Your task to perform on an android device: Open Android settings Image 0: 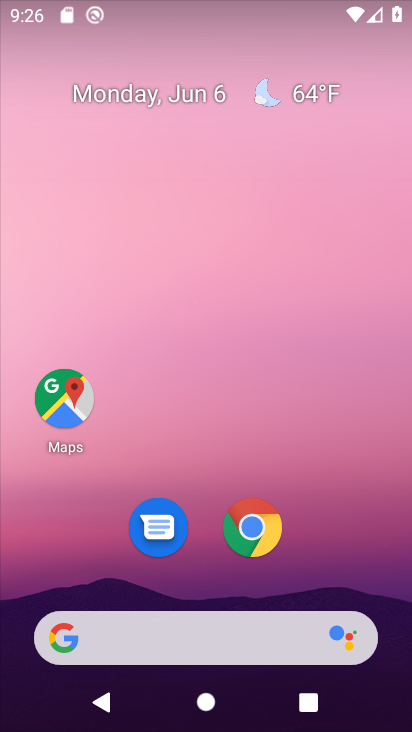
Step 0: drag from (247, 591) to (119, 0)
Your task to perform on an android device: Open Android settings Image 1: 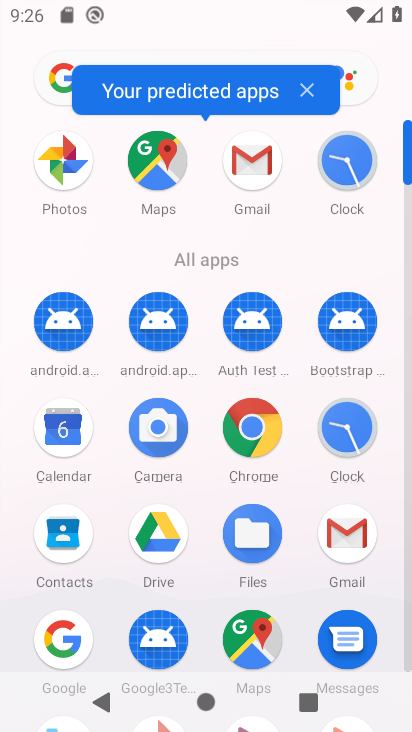
Step 1: drag from (205, 525) to (215, 5)
Your task to perform on an android device: Open Android settings Image 2: 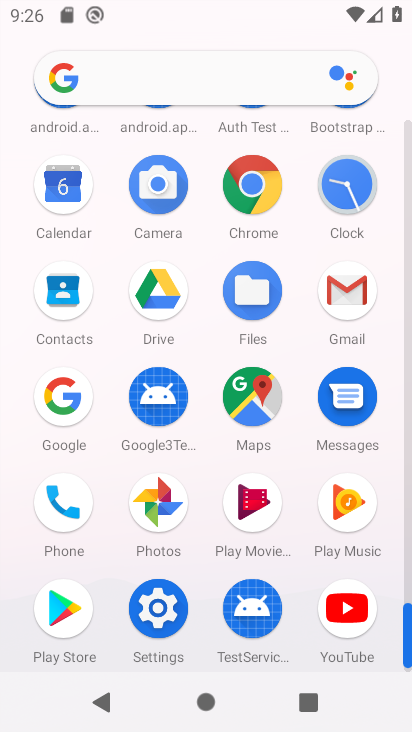
Step 2: click (146, 574)
Your task to perform on an android device: Open Android settings Image 3: 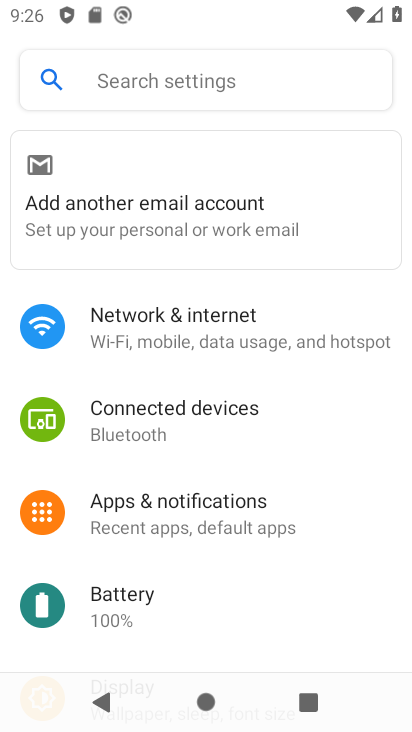
Step 3: task complete